Your task to perform on an android device: turn on improve location accuracy Image 0: 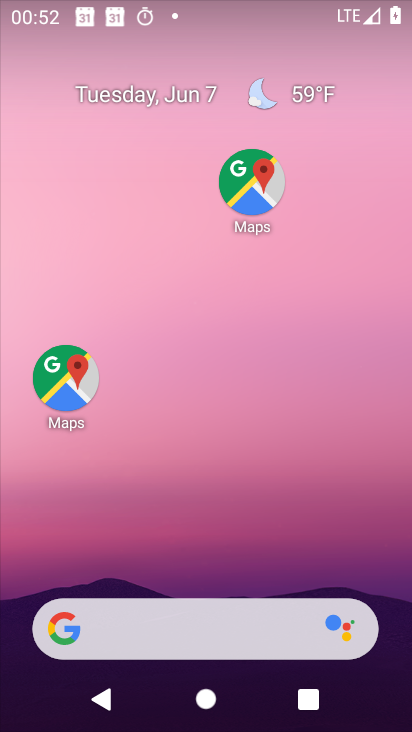
Step 0: drag from (194, 558) to (141, 60)
Your task to perform on an android device: turn on improve location accuracy Image 1: 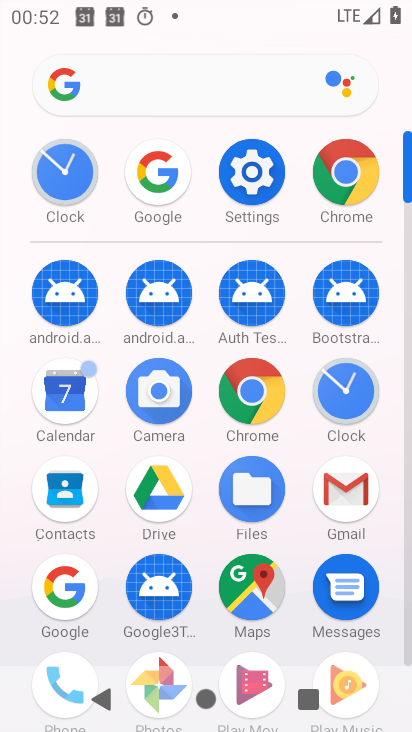
Step 1: click (246, 176)
Your task to perform on an android device: turn on improve location accuracy Image 2: 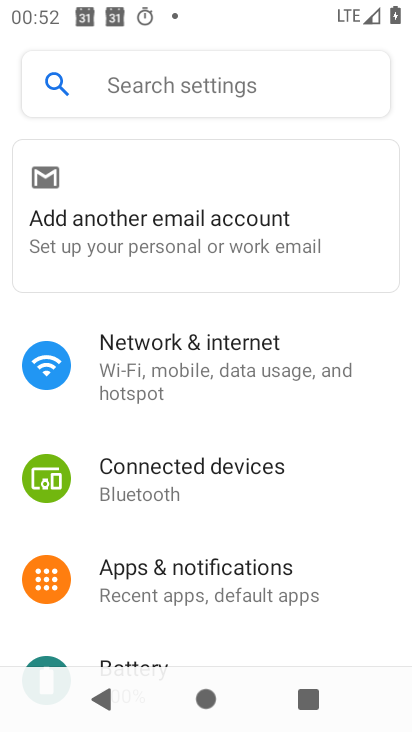
Step 2: drag from (225, 570) to (236, 81)
Your task to perform on an android device: turn on improve location accuracy Image 3: 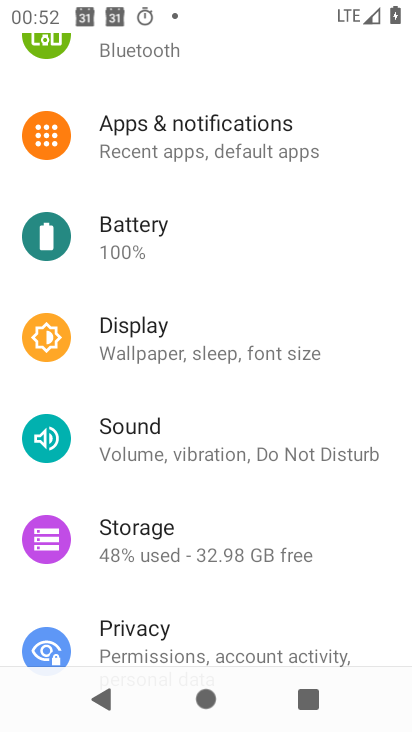
Step 3: drag from (209, 596) to (173, 88)
Your task to perform on an android device: turn on improve location accuracy Image 4: 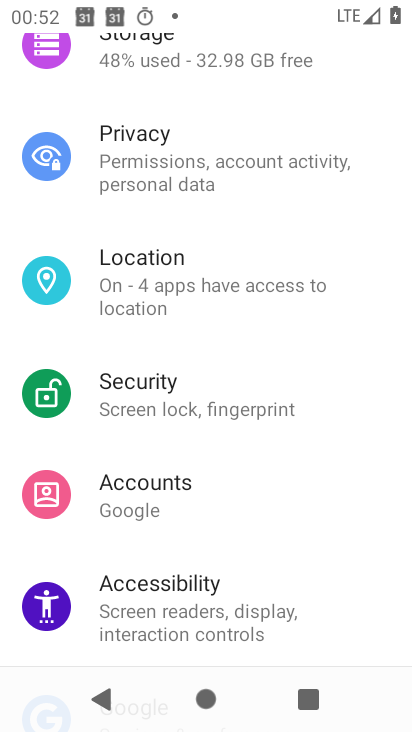
Step 4: click (114, 251)
Your task to perform on an android device: turn on improve location accuracy Image 5: 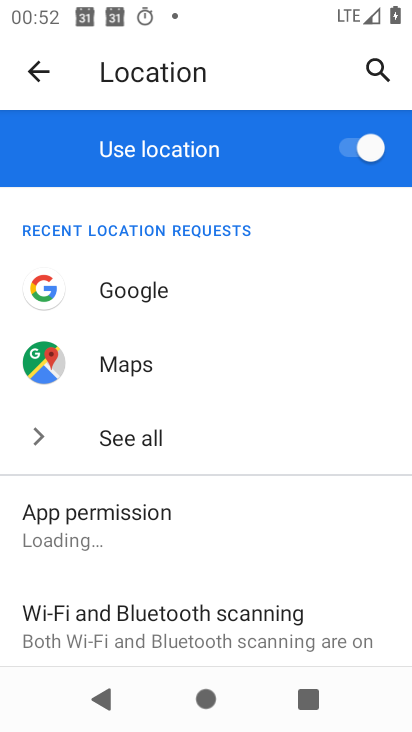
Step 5: drag from (160, 570) to (159, 202)
Your task to perform on an android device: turn on improve location accuracy Image 6: 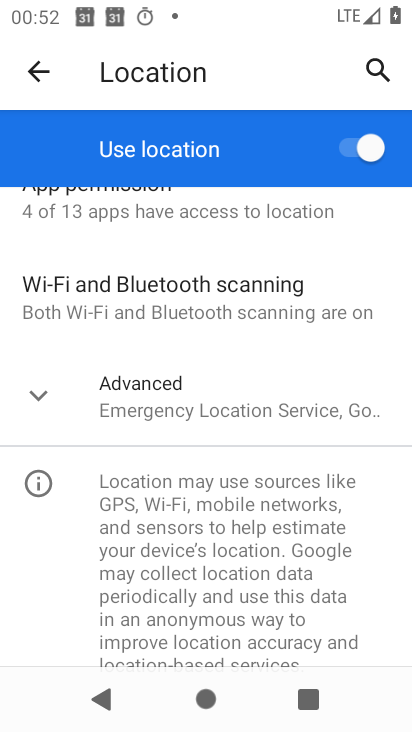
Step 6: click (134, 439)
Your task to perform on an android device: turn on improve location accuracy Image 7: 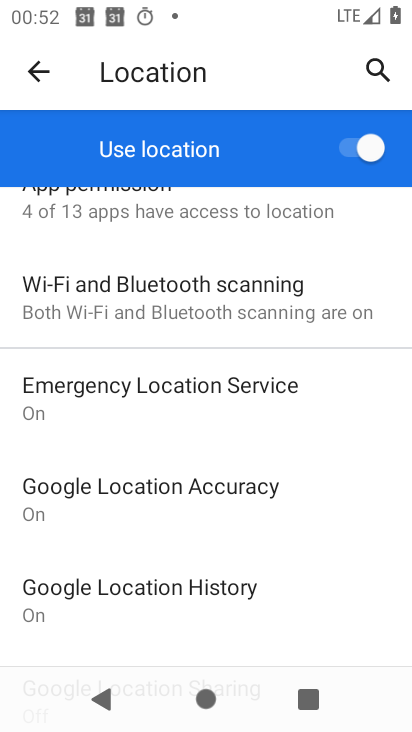
Step 7: click (166, 493)
Your task to perform on an android device: turn on improve location accuracy Image 8: 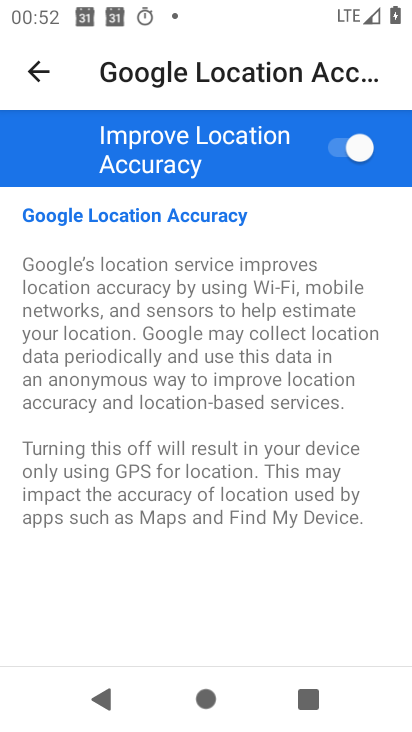
Step 8: task complete